Your task to perform on an android device: toggle pop-ups in chrome Image 0: 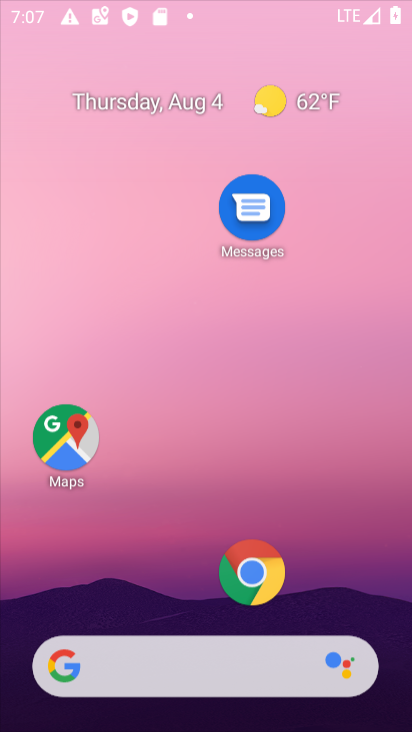
Step 0: press home button
Your task to perform on an android device: toggle pop-ups in chrome Image 1: 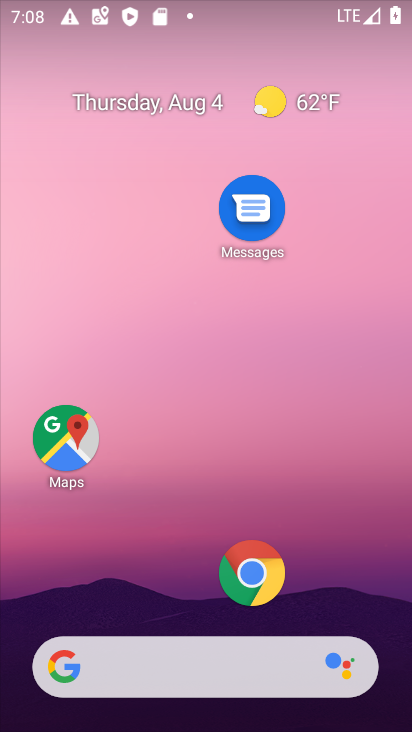
Step 1: click (241, 577)
Your task to perform on an android device: toggle pop-ups in chrome Image 2: 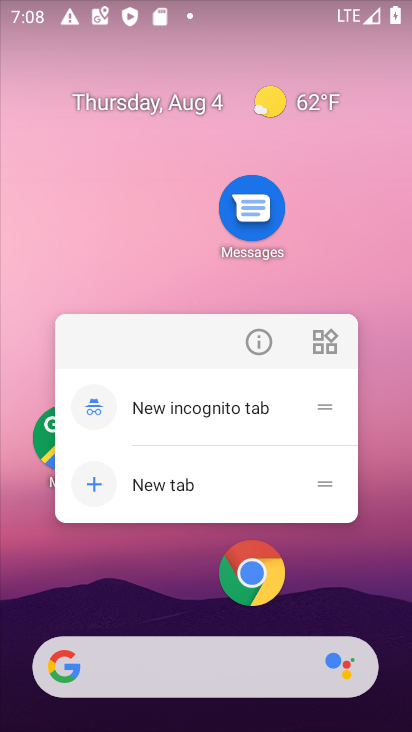
Step 2: click (254, 569)
Your task to perform on an android device: toggle pop-ups in chrome Image 3: 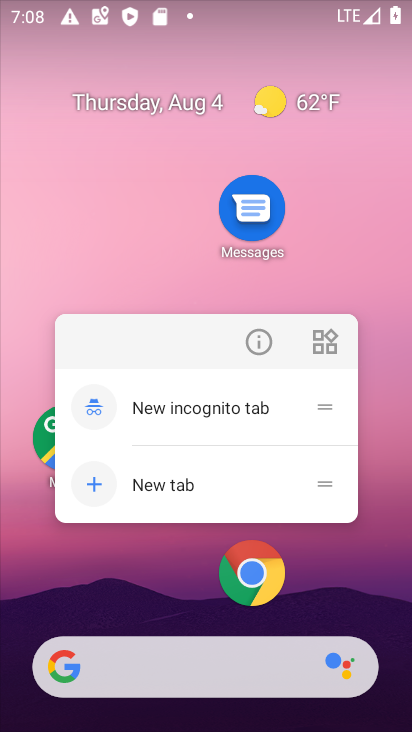
Step 3: drag from (337, 608) to (311, 85)
Your task to perform on an android device: toggle pop-ups in chrome Image 4: 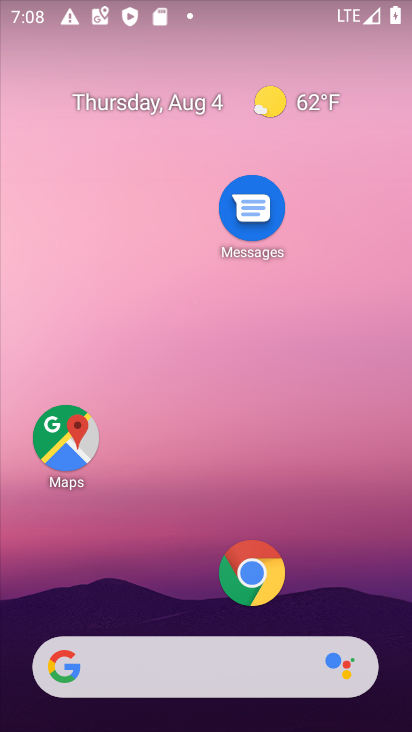
Step 4: drag from (340, 613) to (289, 108)
Your task to perform on an android device: toggle pop-ups in chrome Image 5: 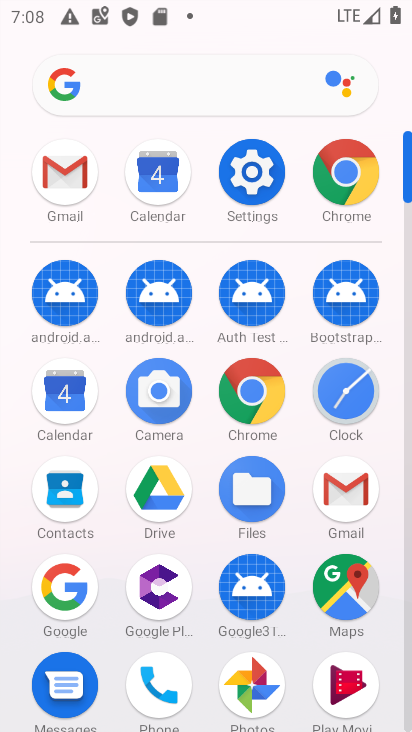
Step 5: click (340, 174)
Your task to perform on an android device: toggle pop-ups in chrome Image 6: 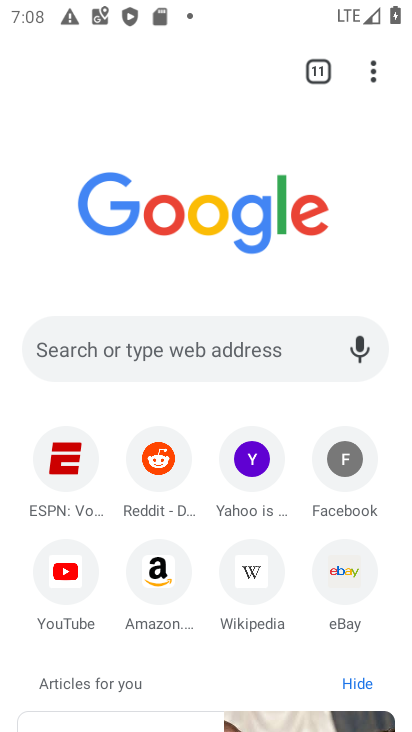
Step 6: drag from (365, 75) to (102, 599)
Your task to perform on an android device: toggle pop-ups in chrome Image 7: 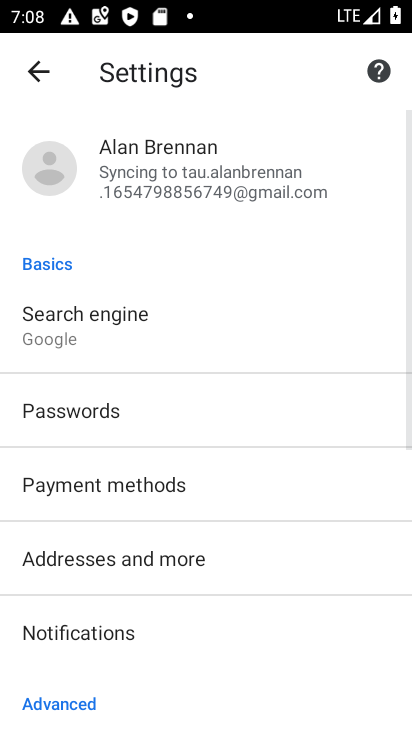
Step 7: drag from (300, 642) to (277, 278)
Your task to perform on an android device: toggle pop-ups in chrome Image 8: 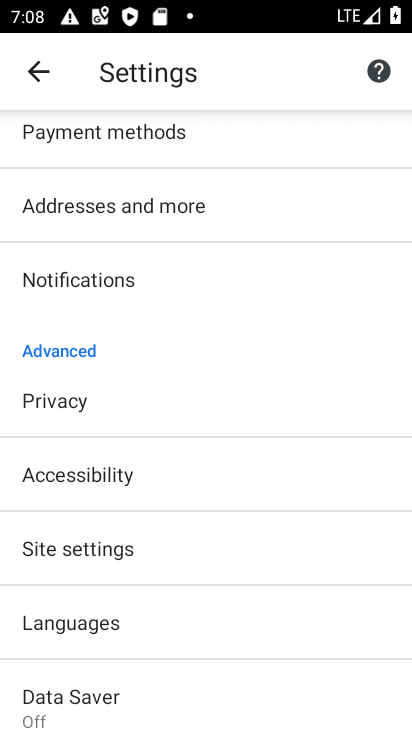
Step 8: click (70, 552)
Your task to perform on an android device: toggle pop-ups in chrome Image 9: 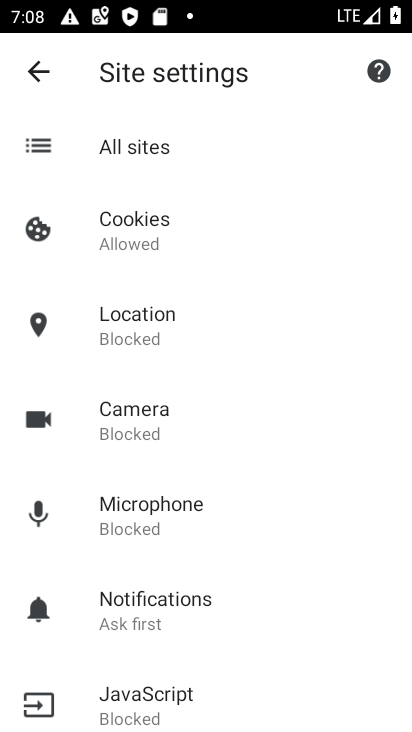
Step 9: drag from (273, 575) to (240, 240)
Your task to perform on an android device: toggle pop-ups in chrome Image 10: 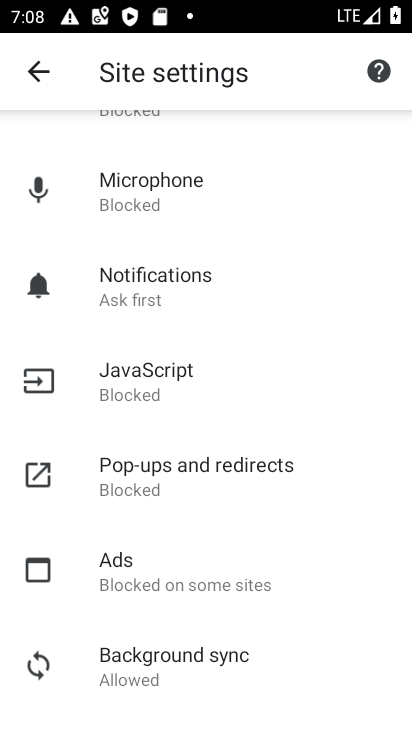
Step 10: click (145, 485)
Your task to perform on an android device: toggle pop-ups in chrome Image 11: 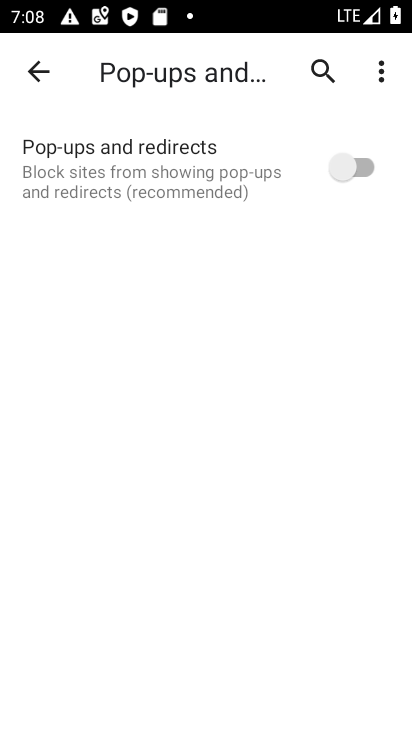
Step 11: click (335, 165)
Your task to perform on an android device: toggle pop-ups in chrome Image 12: 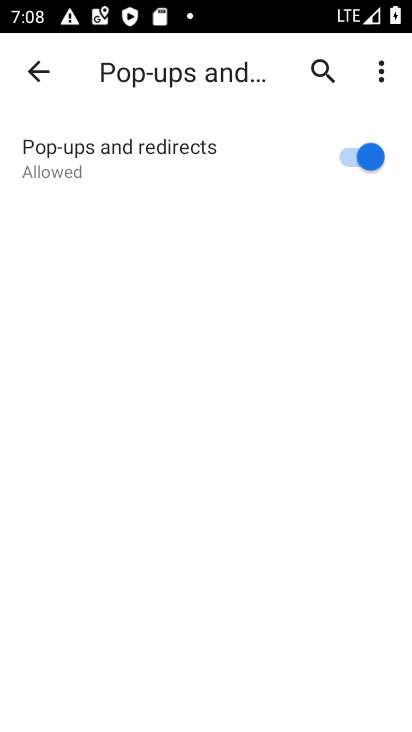
Step 12: task complete